Your task to perform on an android device: Open Youtube and go to the subscriptions tab Image 0: 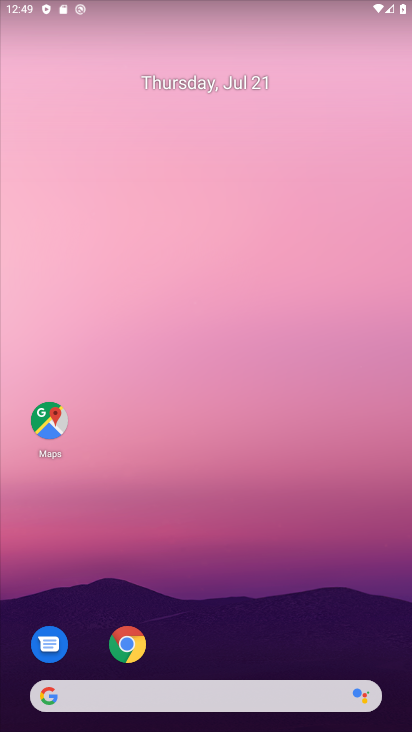
Step 0: drag from (203, 652) to (192, 53)
Your task to perform on an android device: Open Youtube and go to the subscriptions tab Image 1: 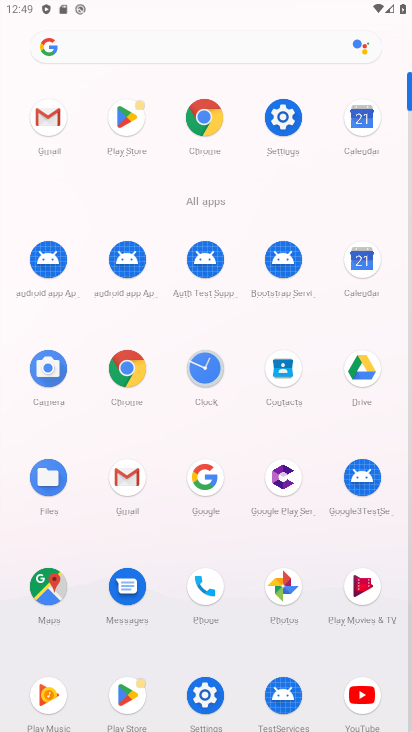
Step 1: click (375, 699)
Your task to perform on an android device: Open Youtube and go to the subscriptions tab Image 2: 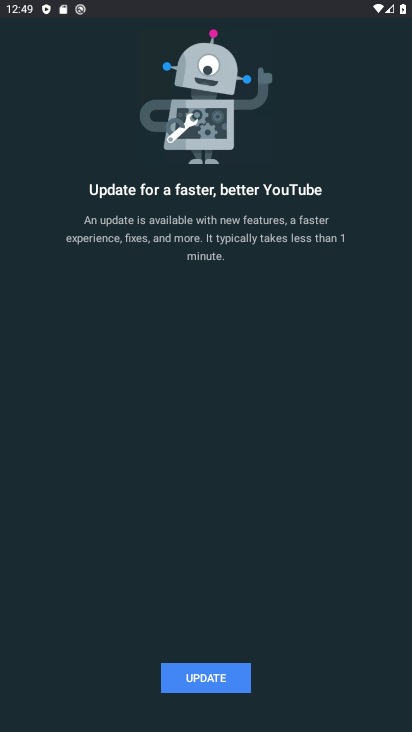
Step 2: click (214, 687)
Your task to perform on an android device: Open Youtube and go to the subscriptions tab Image 3: 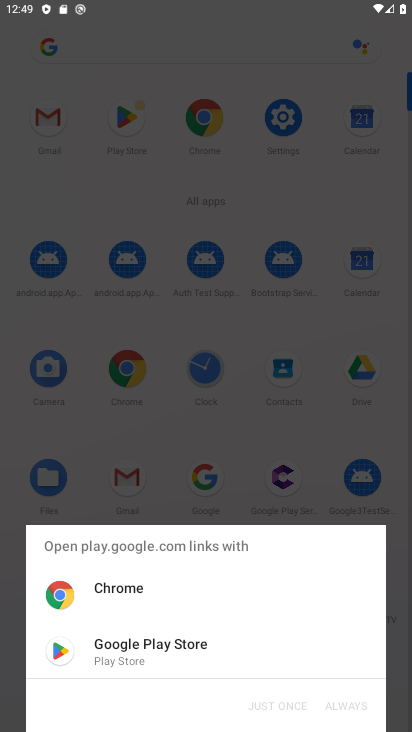
Step 3: click (148, 653)
Your task to perform on an android device: Open Youtube and go to the subscriptions tab Image 4: 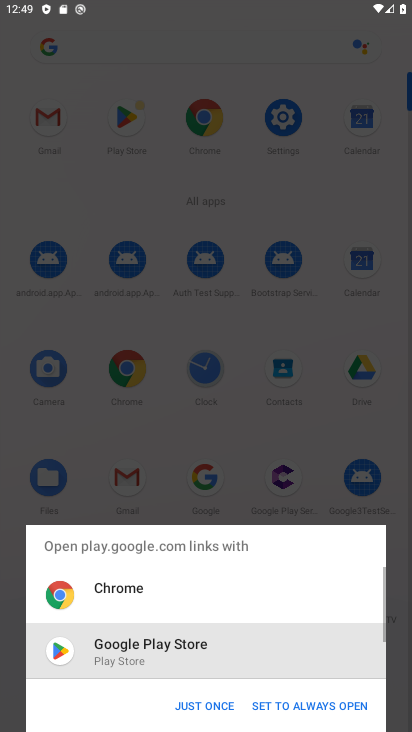
Step 4: click (211, 704)
Your task to perform on an android device: Open Youtube and go to the subscriptions tab Image 5: 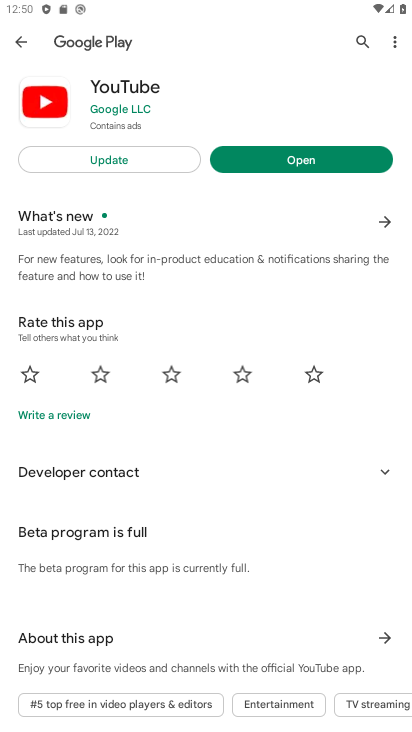
Step 5: click (123, 150)
Your task to perform on an android device: Open Youtube and go to the subscriptions tab Image 6: 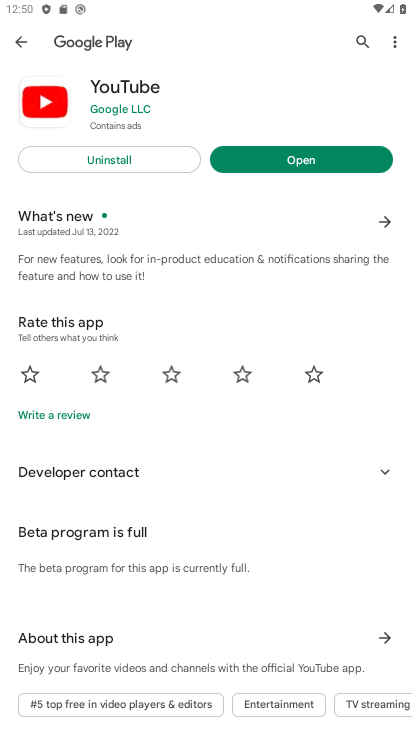
Step 6: click (267, 162)
Your task to perform on an android device: Open Youtube and go to the subscriptions tab Image 7: 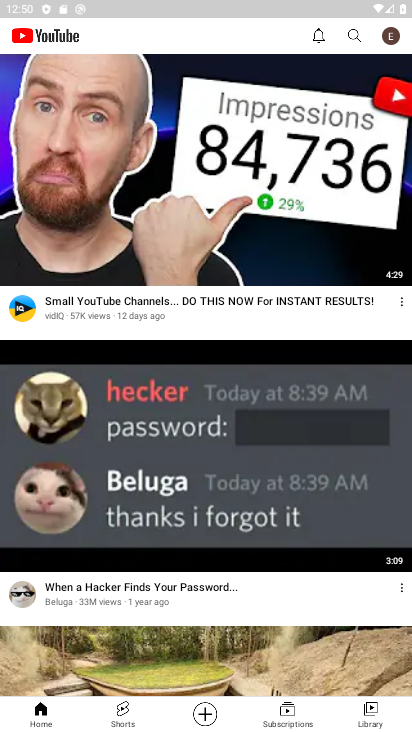
Step 7: press back button
Your task to perform on an android device: Open Youtube and go to the subscriptions tab Image 8: 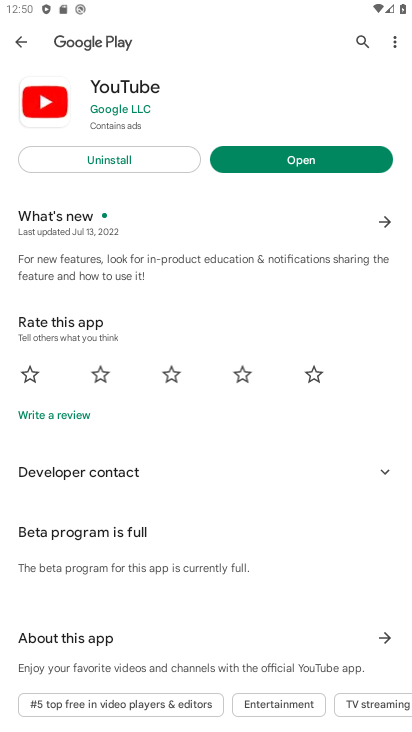
Step 8: press back button
Your task to perform on an android device: Open Youtube and go to the subscriptions tab Image 9: 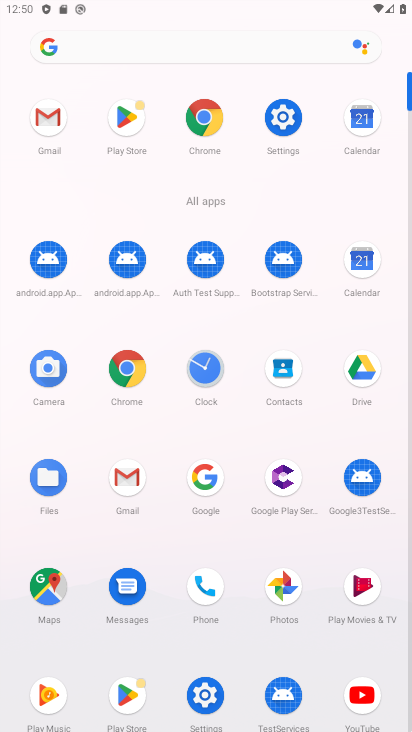
Step 9: click (361, 694)
Your task to perform on an android device: Open Youtube and go to the subscriptions tab Image 10: 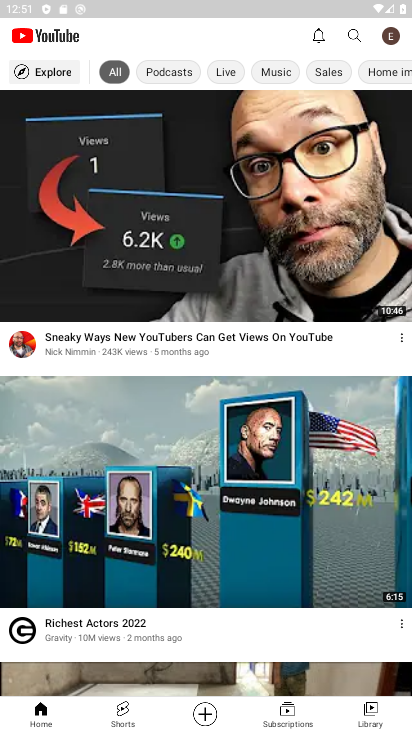
Step 10: click (284, 714)
Your task to perform on an android device: Open Youtube and go to the subscriptions tab Image 11: 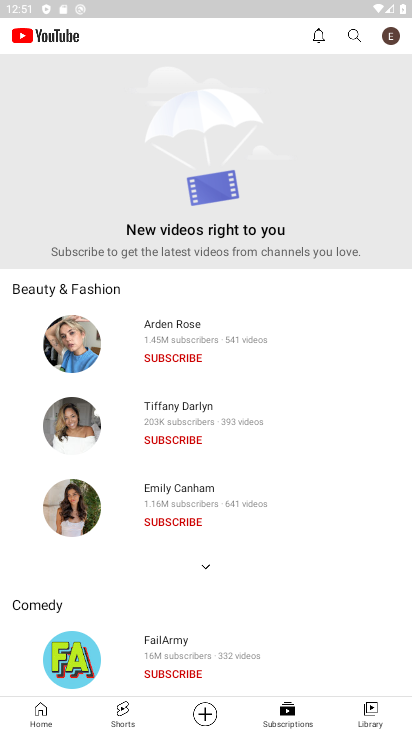
Step 11: task complete